Your task to perform on an android device: open device folders in google photos Image 0: 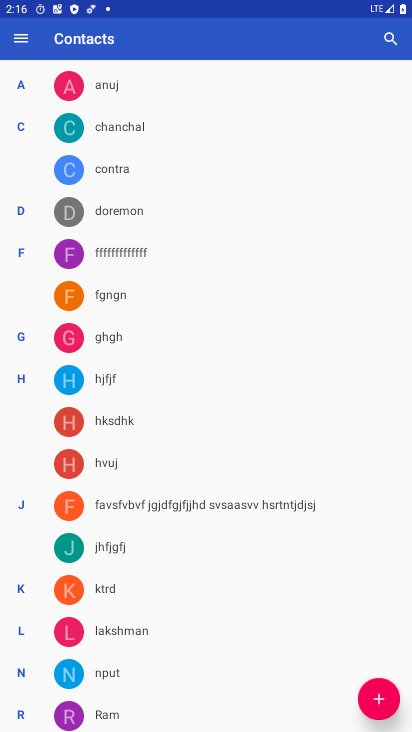
Step 0: press home button
Your task to perform on an android device: open device folders in google photos Image 1: 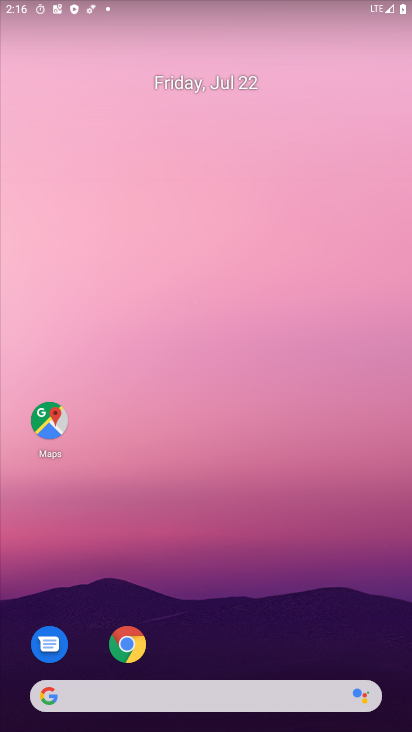
Step 1: drag from (166, 695) to (214, 366)
Your task to perform on an android device: open device folders in google photos Image 2: 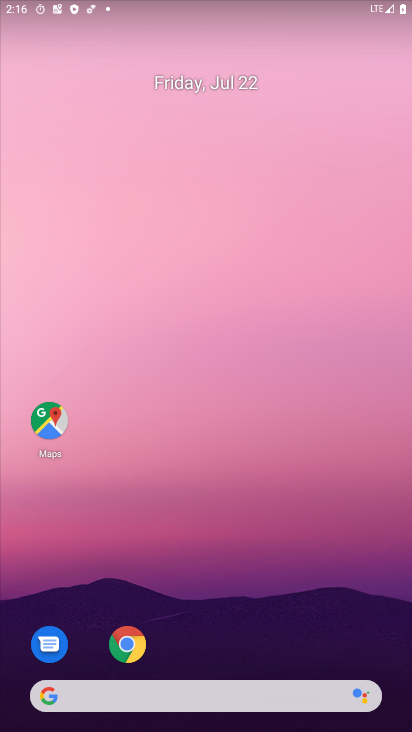
Step 2: drag from (170, 637) to (267, 282)
Your task to perform on an android device: open device folders in google photos Image 3: 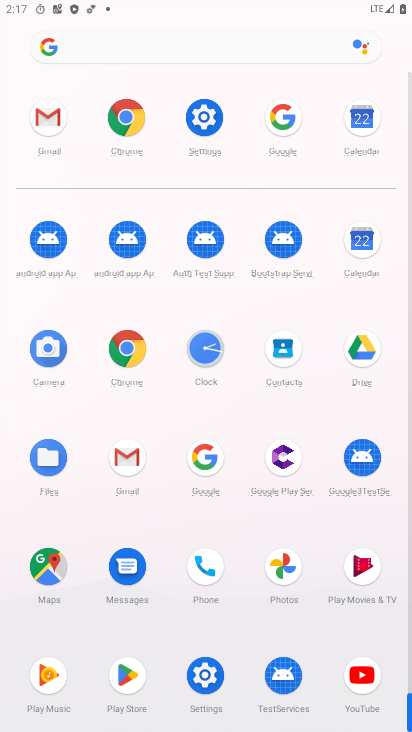
Step 3: click (275, 561)
Your task to perform on an android device: open device folders in google photos Image 4: 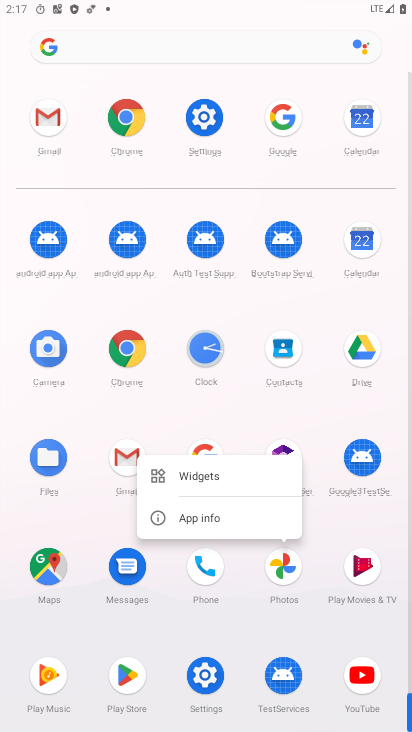
Step 4: click (285, 598)
Your task to perform on an android device: open device folders in google photos Image 5: 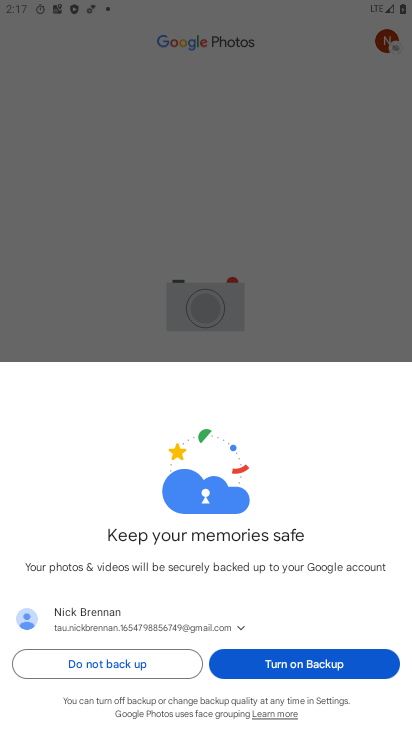
Step 5: click (262, 658)
Your task to perform on an android device: open device folders in google photos Image 6: 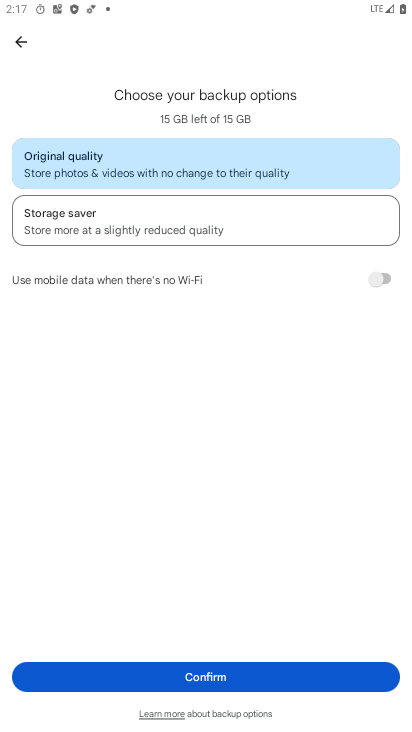
Step 6: click (245, 675)
Your task to perform on an android device: open device folders in google photos Image 7: 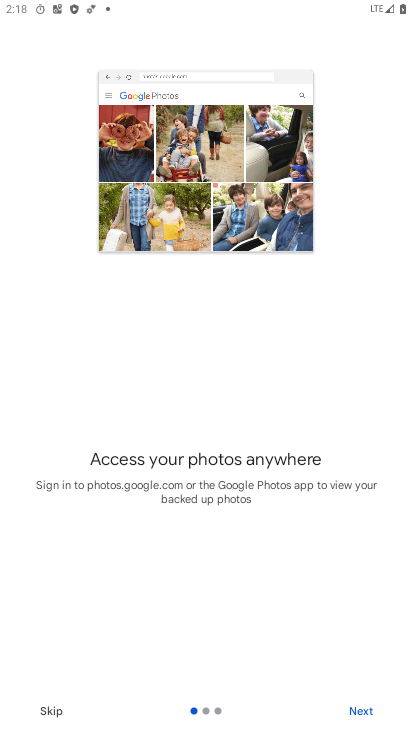
Step 7: click (361, 711)
Your task to perform on an android device: open device folders in google photos Image 8: 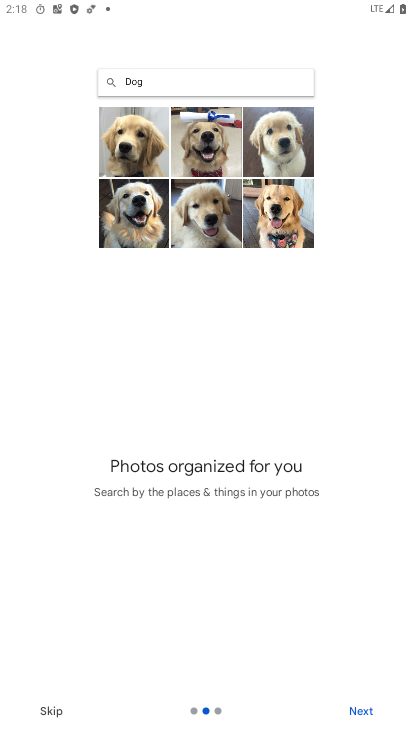
Step 8: click (356, 713)
Your task to perform on an android device: open device folders in google photos Image 9: 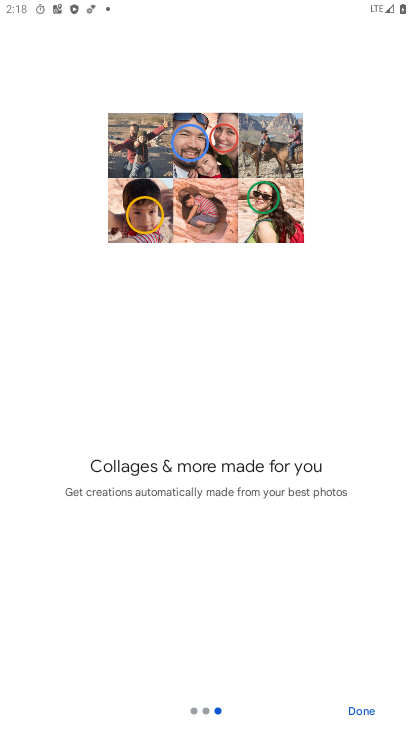
Step 9: click (358, 714)
Your task to perform on an android device: open device folders in google photos Image 10: 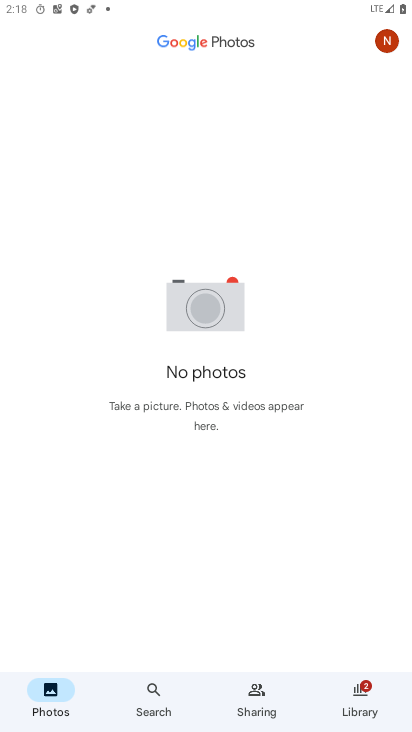
Step 10: click (388, 38)
Your task to perform on an android device: open device folders in google photos Image 11: 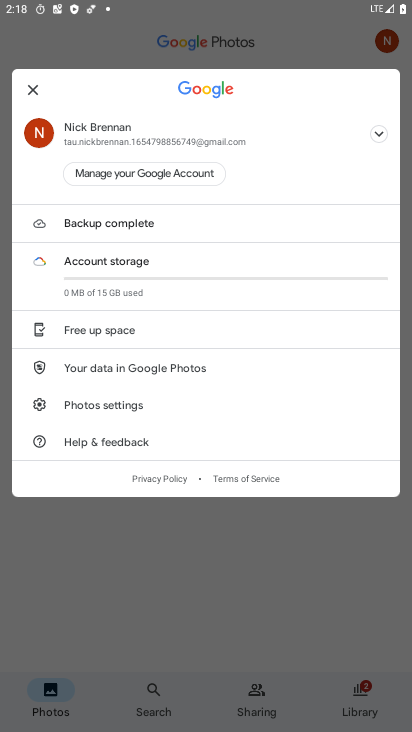
Step 11: task complete